Your task to perform on an android device: toggle location history Image 0: 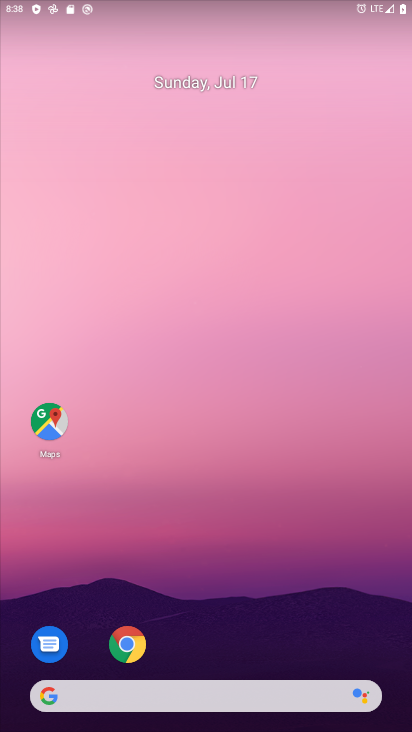
Step 0: drag from (296, 528) to (296, 207)
Your task to perform on an android device: toggle location history Image 1: 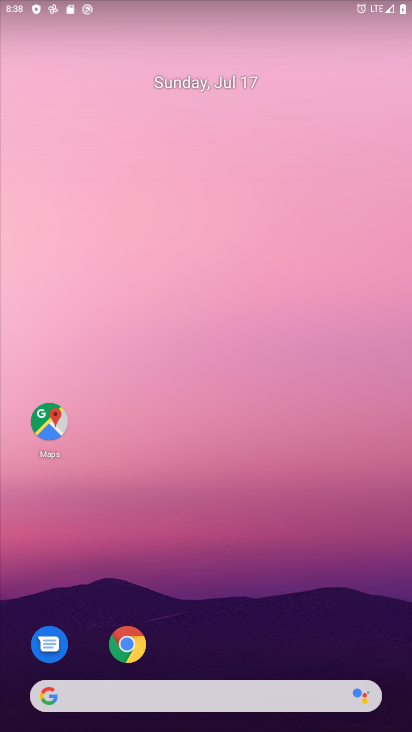
Step 1: drag from (210, 656) to (238, 212)
Your task to perform on an android device: toggle location history Image 2: 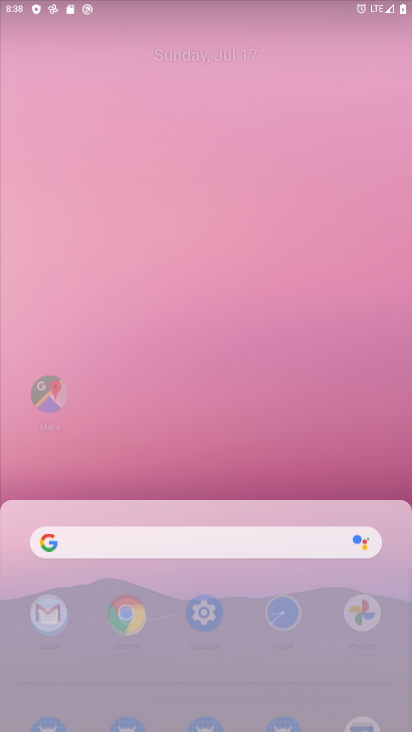
Step 2: drag from (265, 401) to (265, 54)
Your task to perform on an android device: toggle location history Image 3: 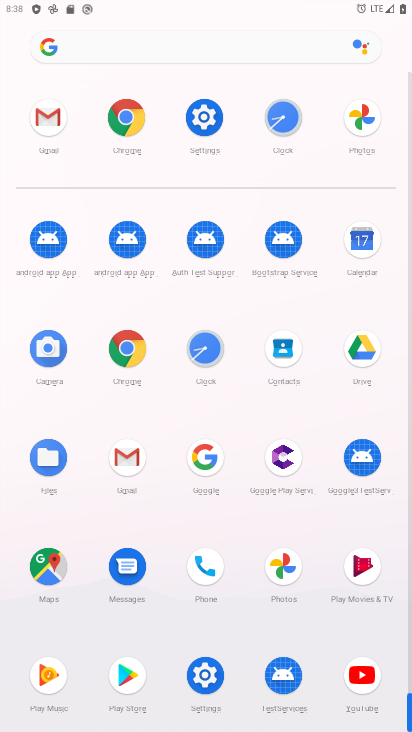
Step 3: drag from (247, 516) to (263, 15)
Your task to perform on an android device: toggle location history Image 4: 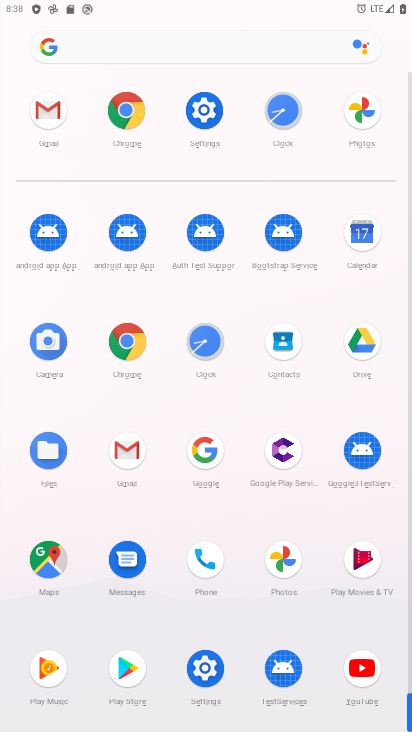
Step 4: click (203, 118)
Your task to perform on an android device: toggle location history Image 5: 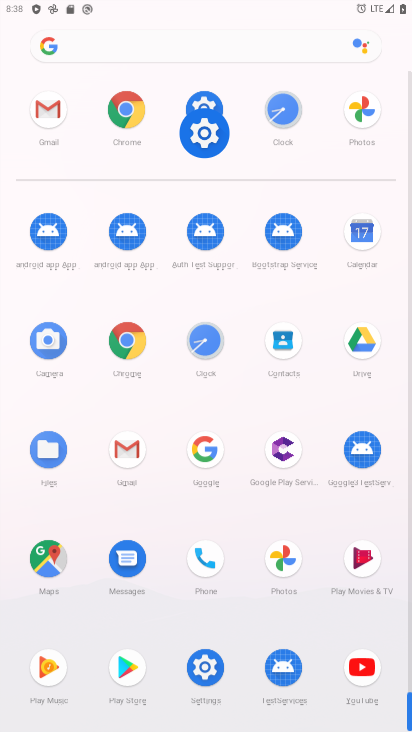
Step 5: click (202, 117)
Your task to perform on an android device: toggle location history Image 6: 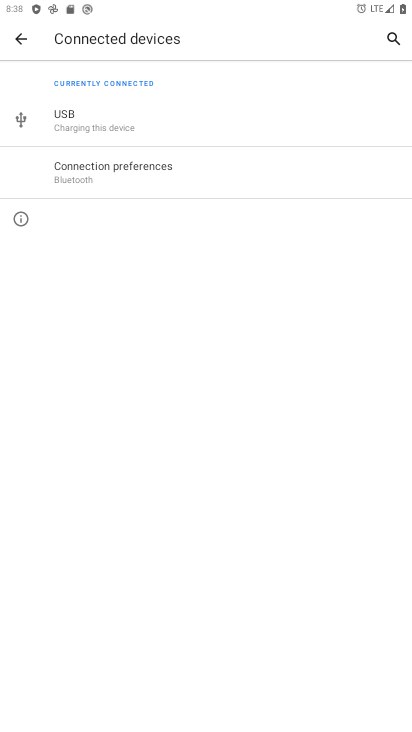
Step 6: click (21, 38)
Your task to perform on an android device: toggle location history Image 7: 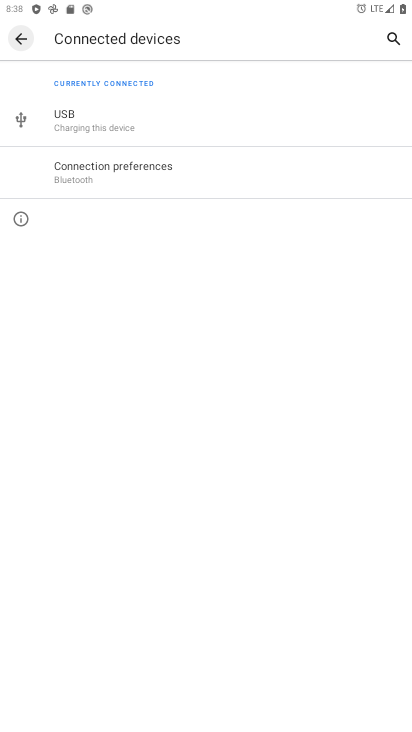
Step 7: click (20, 38)
Your task to perform on an android device: toggle location history Image 8: 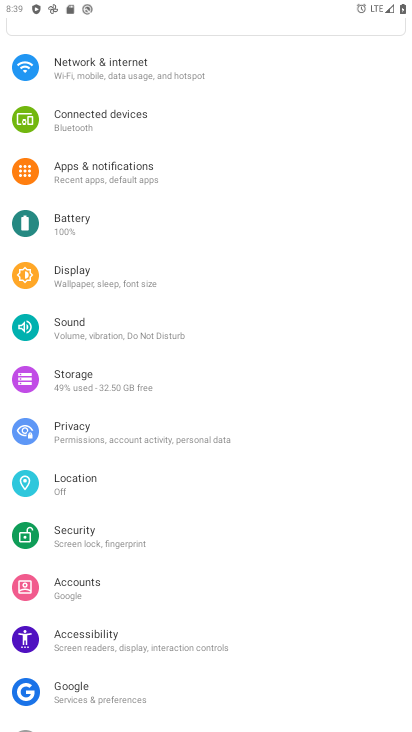
Step 8: click (86, 483)
Your task to perform on an android device: toggle location history Image 9: 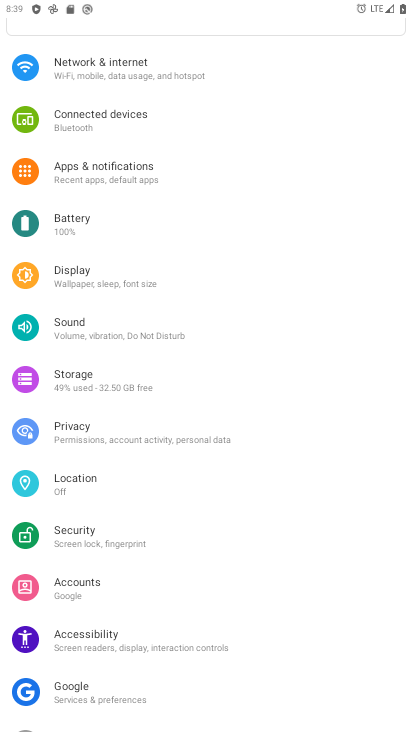
Step 9: click (86, 483)
Your task to perform on an android device: toggle location history Image 10: 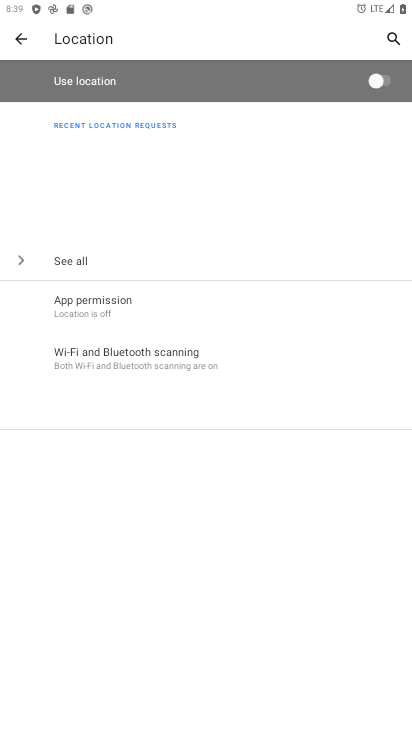
Step 10: click (78, 484)
Your task to perform on an android device: toggle location history Image 11: 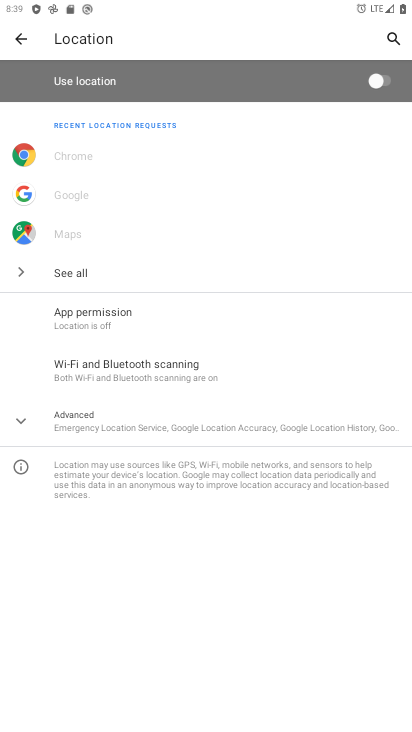
Step 11: click (80, 483)
Your task to perform on an android device: toggle location history Image 12: 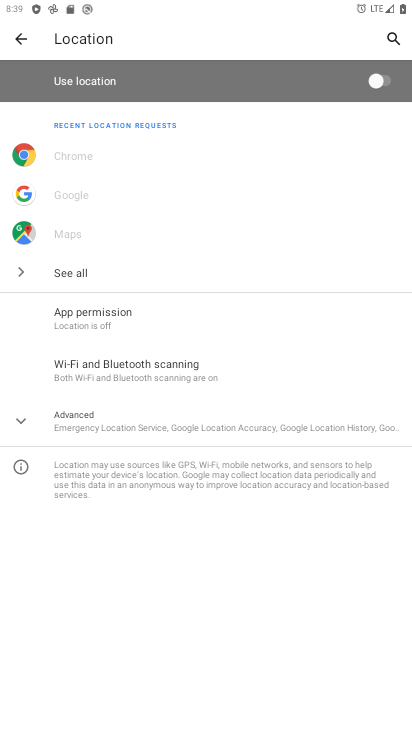
Step 12: click (84, 481)
Your task to perform on an android device: toggle location history Image 13: 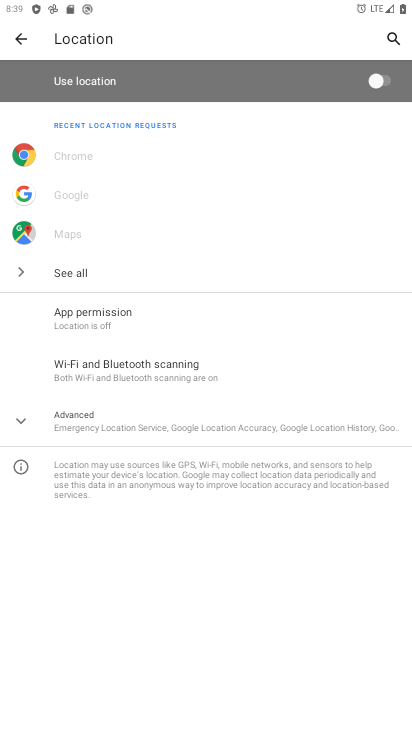
Step 13: click (375, 76)
Your task to perform on an android device: toggle location history Image 14: 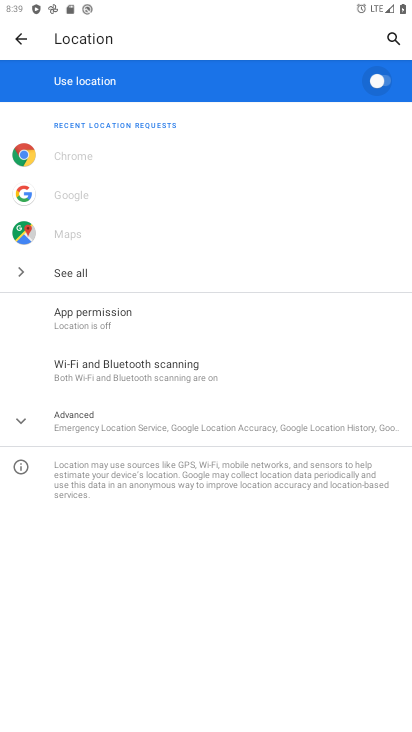
Step 14: click (381, 82)
Your task to perform on an android device: toggle location history Image 15: 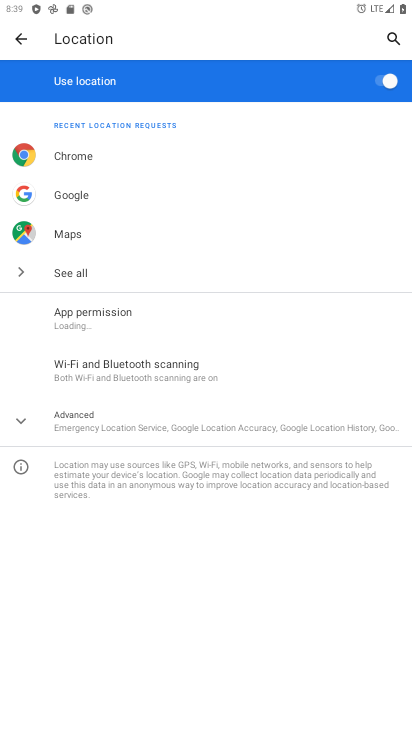
Step 15: click (383, 82)
Your task to perform on an android device: toggle location history Image 16: 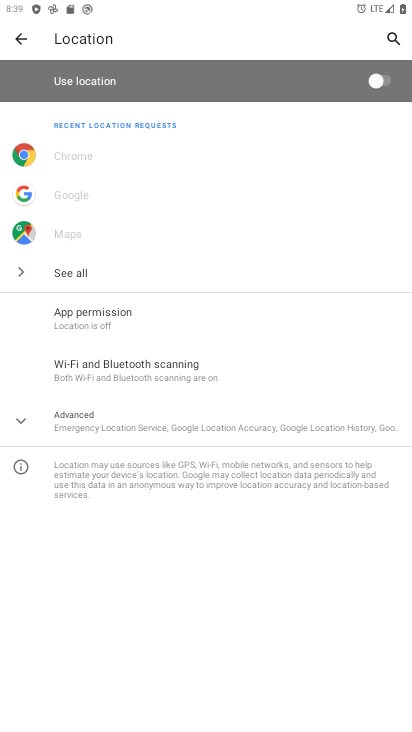
Step 16: click (379, 79)
Your task to perform on an android device: toggle location history Image 17: 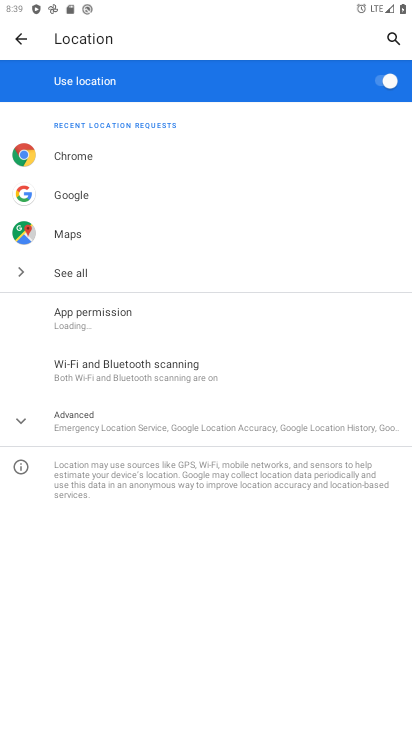
Step 17: task complete